Your task to perform on an android device: open sync settings in chrome Image 0: 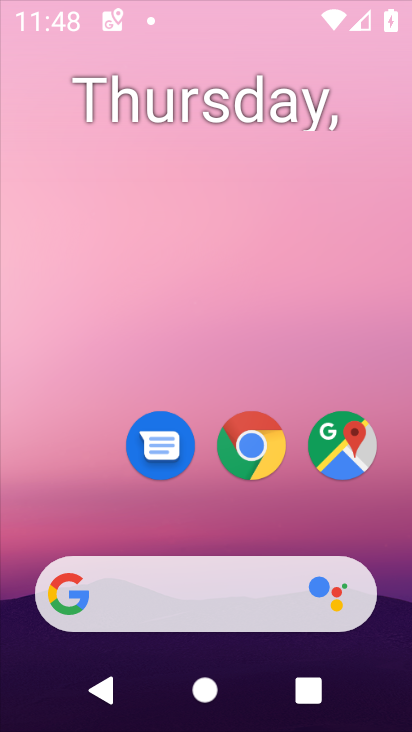
Step 0: drag from (241, 524) to (197, 223)
Your task to perform on an android device: open sync settings in chrome Image 1: 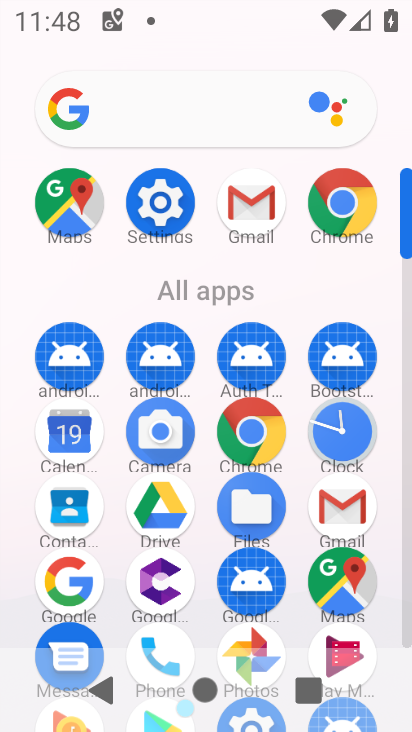
Step 1: click (341, 201)
Your task to perform on an android device: open sync settings in chrome Image 2: 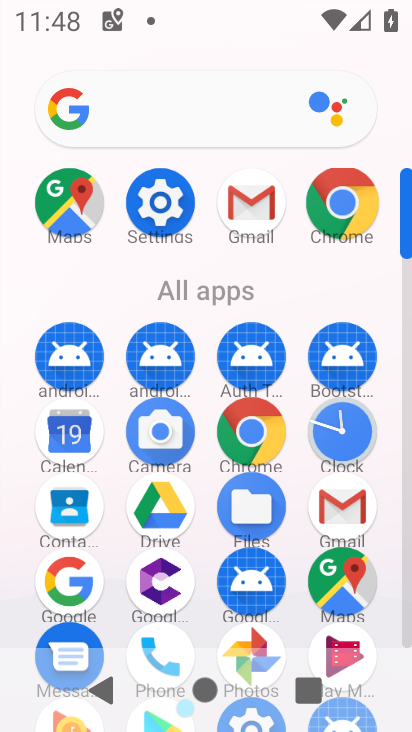
Step 2: click (341, 201)
Your task to perform on an android device: open sync settings in chrome Image 3: 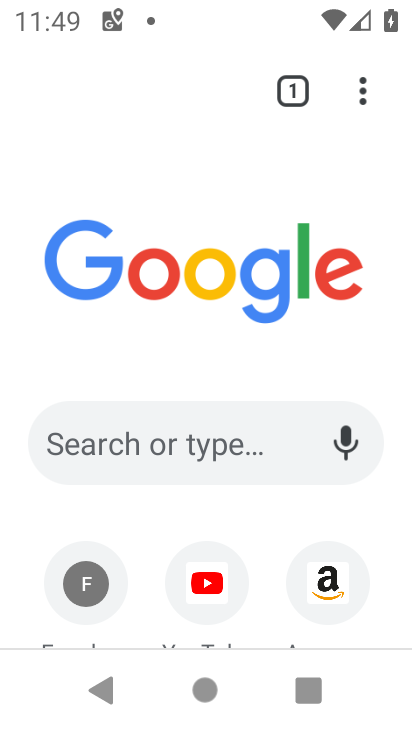
Step 3: click (363, 73)
Your task to perform on an android device: open sync settings in chrome Image 4: 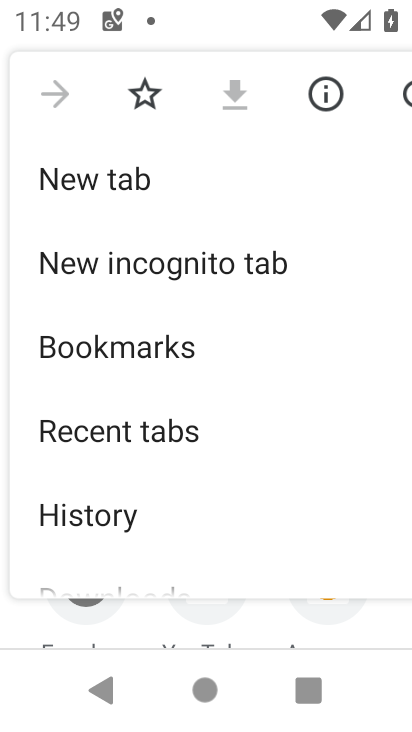
Step 4: drag from (138, 478) to (100, 110)
Your task to perform on an android device: open sync settings in chrome Image 5: 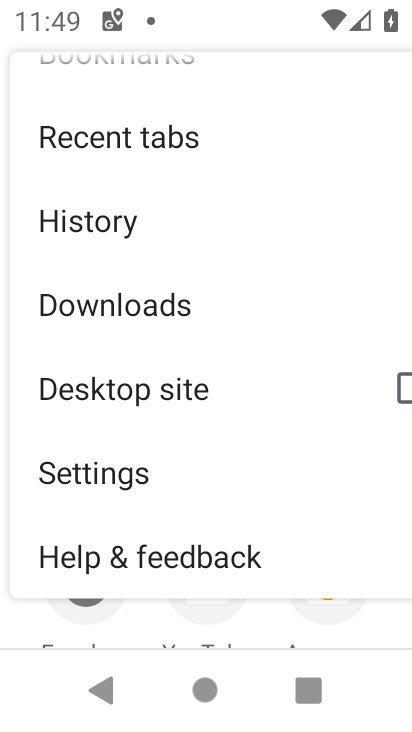
Step 5: click (101, 478)
Your task to perform on an android device: open sync settings in chrome Image 6: 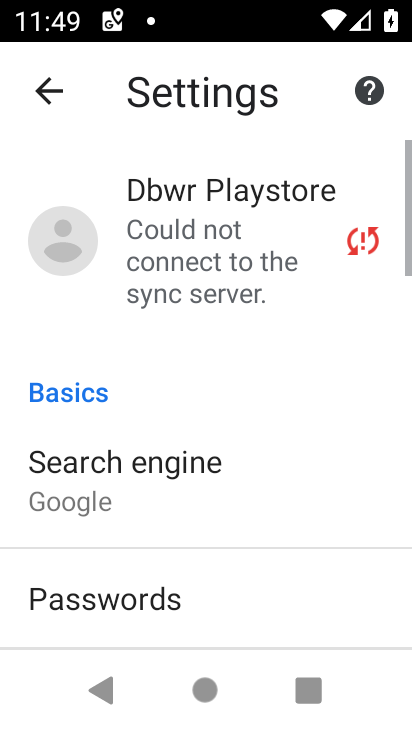
Step 6: drag from (140, 510) to (163, 139)
Your task to perform on an android device: open sync settings in chrome Image 7: 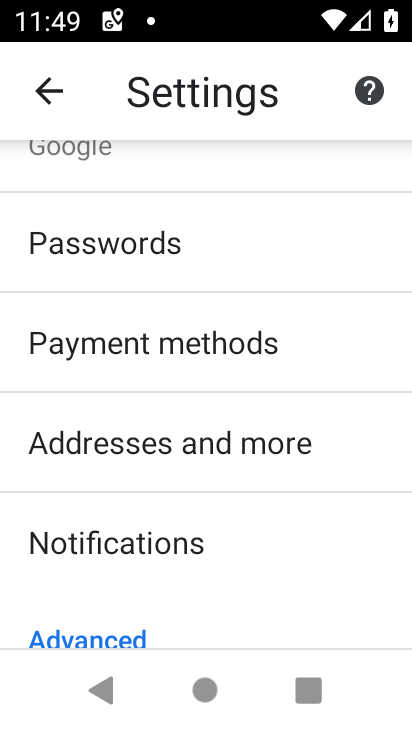
Step 7: drag from (142, 510) to (192, 153)
Your task to perform on an android device: open sync settings in chrome Image 8: 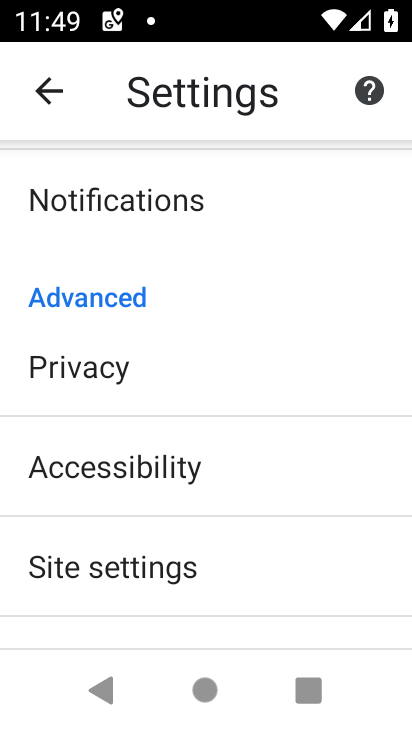
Step 8: click (110, 576)
Your task to perform on an android device: open sync settings in chrome Image 9: 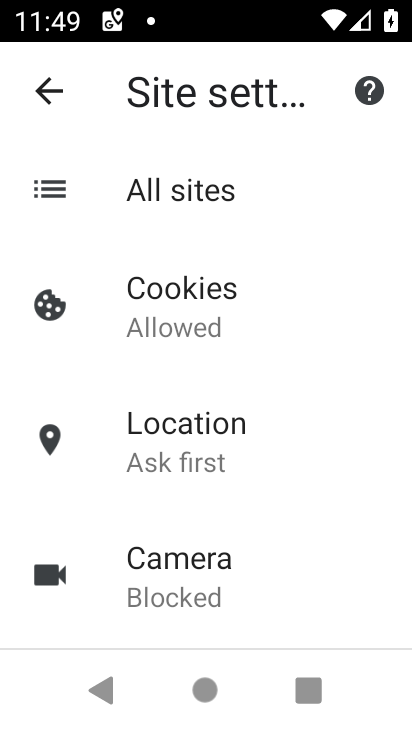
Step 9: drag from (181, 568) to (239, 107)
Your task to perform on an android device: open sync settings in chrome Image 10: 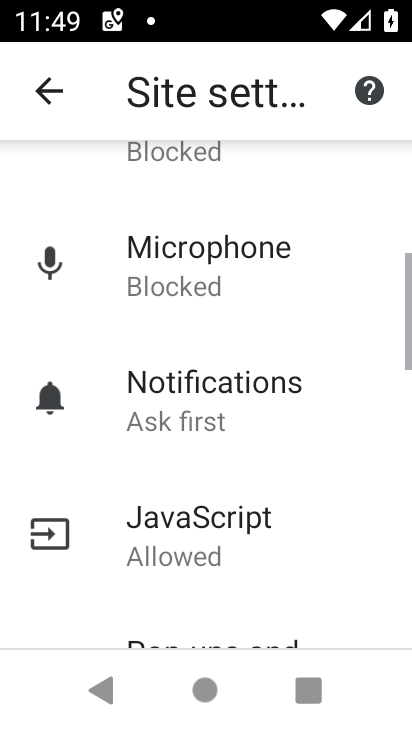
Step 10: drag from (264, 258) to (306, 0)
Your task to perform on an android device: open sync settings in chrome Image 11: 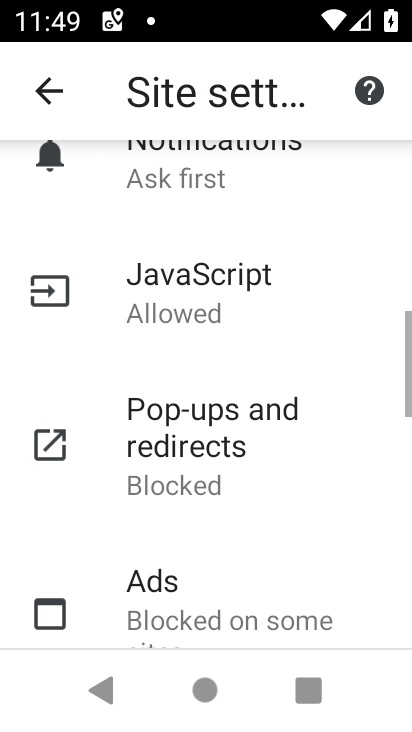
Step 11: drag from (218, 526) to (267, 81)
Your task to perform on an android device: open sync settings in chrome Image 12: 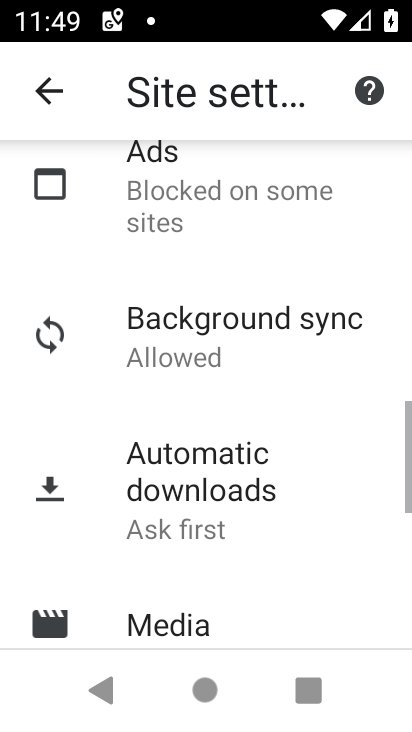
Step 12: click (205, 568)
Your task to perform on an android device: open sync settings in chrome Image 13: 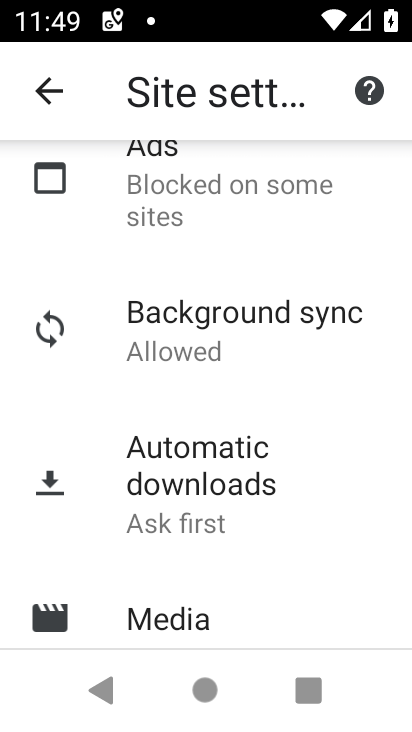
Step 13: click (188, 327)
Your task to perform on an android device: open sync settings in chrome Image 14: 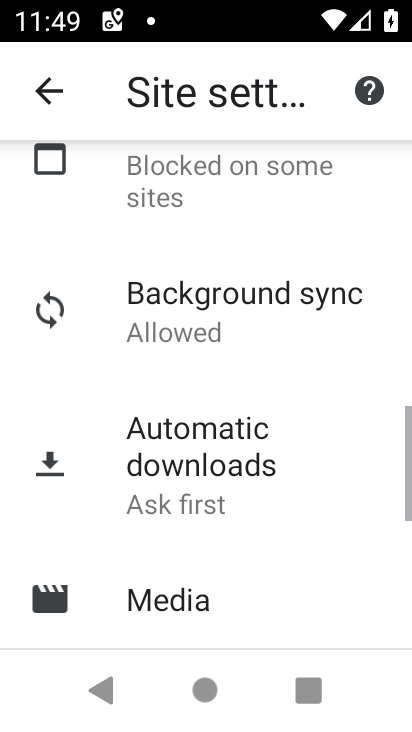
Step 14: click (190, 325)
Your task to perform on an android device: open sync settings in chrome Image 15: 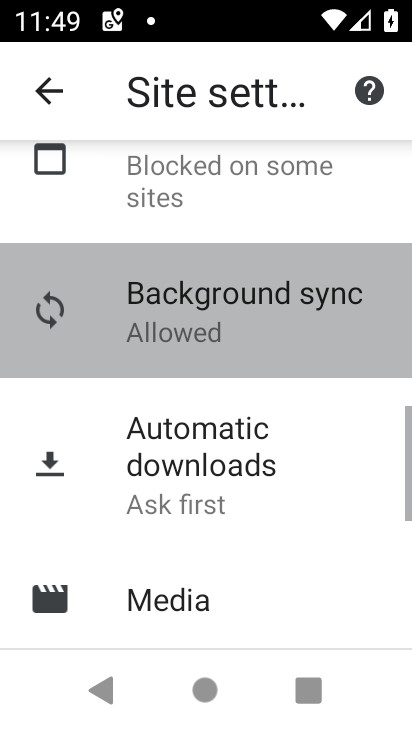
Step 15: click (190, 325)
Your task to perform on an android device: open sync settings in chrome Image 16: 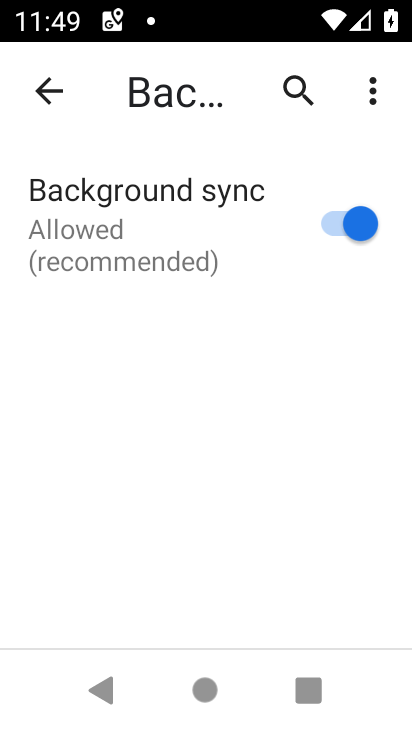
Step 16: click (187, 343)
Your task to perform on an android device: open sync settings in chrome Image 17: 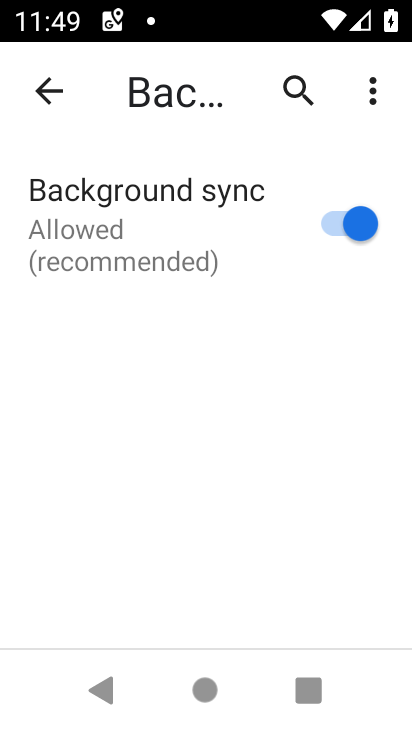
Step 17: task complete